Your task to perform on an android device: Open calendar and show me the first week of next month Image 0: 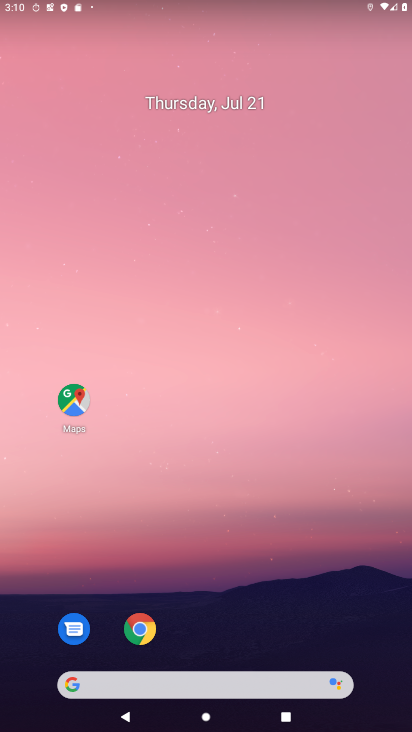
Step 0: drag from (240, 651) to (379, 432)
Your task to perform on an android device: Open calendar and show me the first week of next month Image 1: 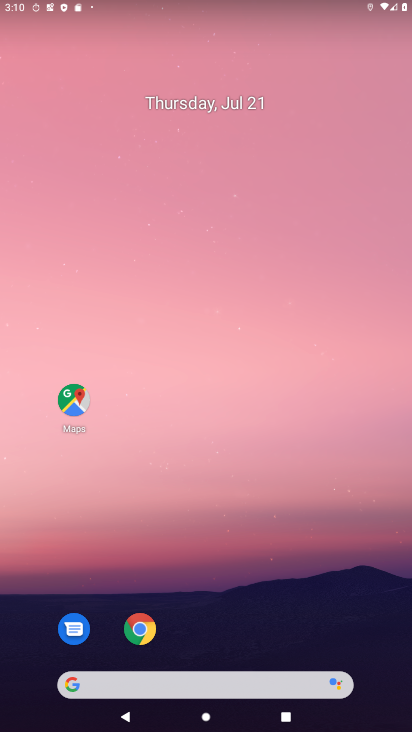
Step 1: drag from (214, 641) to (192, 12)
Your task to perform on an android device: Open calendar and show me the first week of next month Image 2: 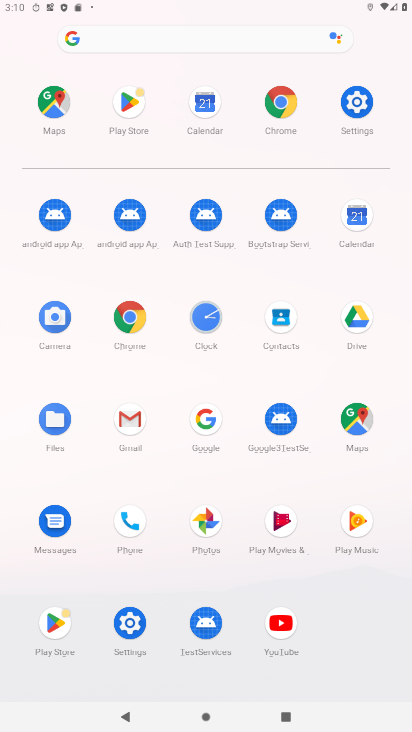
Step 2: click (364, 228)
Your task to perform on an android device: Open calendar and show me the first week of next month Image 3: 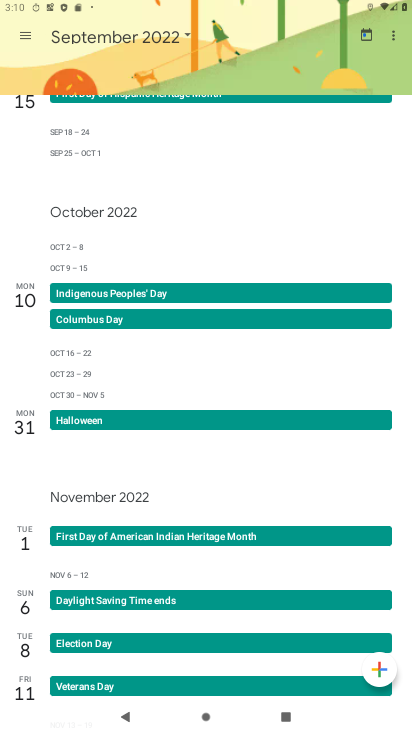
Step 3: drag from (185, 172) to (190, 725)
Your task to perform on an android device: Open calendar and show me the first week of next month Image 4: 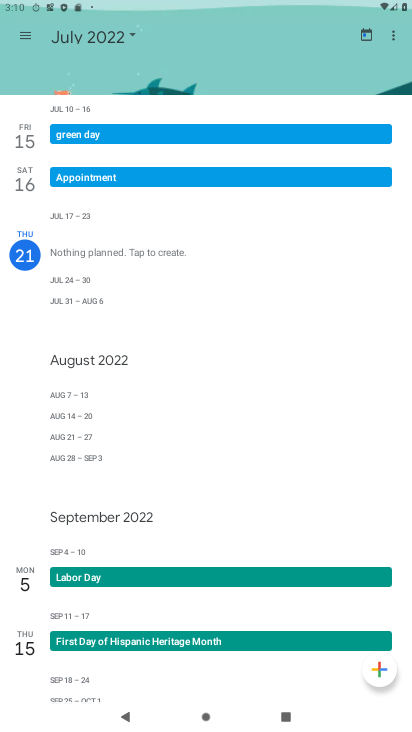
Step 4: drag from (139, 175) to (143, 561)
Your task to perform on an android device: Open calendar and show me the first week of next month Image 5: 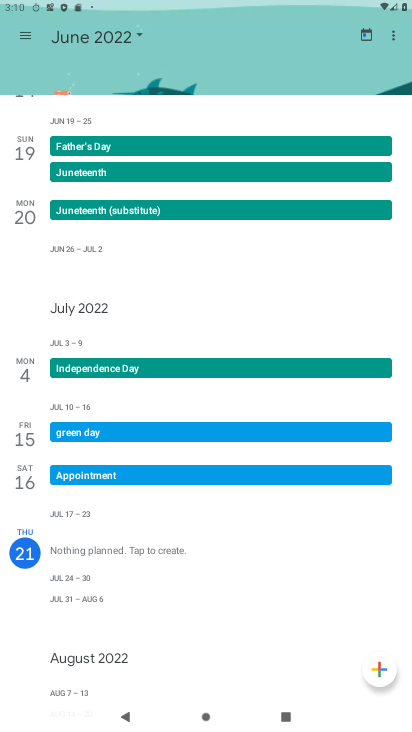
Step 5: drag from (132, 555) to (163, 198)
Your task to perform on an android device: Open calendar and show me the first week of next month Image 6: 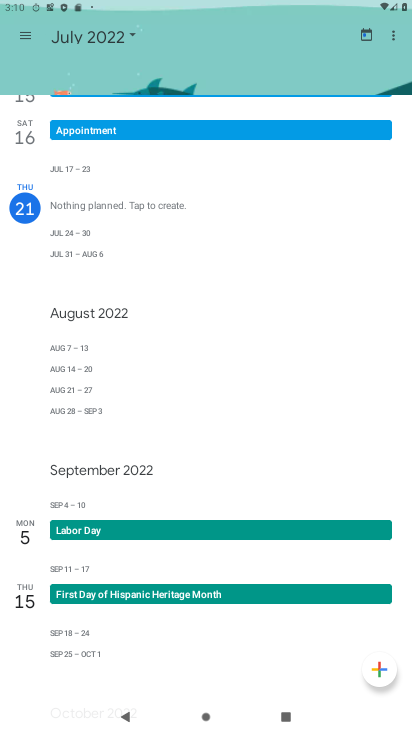
Step 6: drag from (146, 526) to (177, 353)
Your task to perform on an android device: Open calendar and show me the first week of next month Image 7: 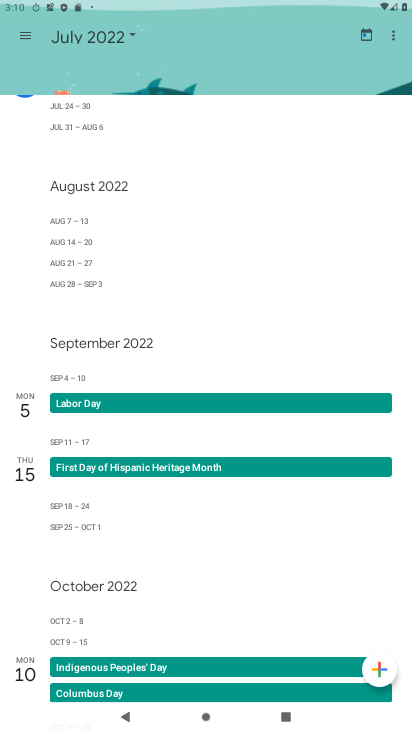
Step 7: click (18, 30)
Your task to perform on an android device: Open calendar and show me the first week of next month Image 8: 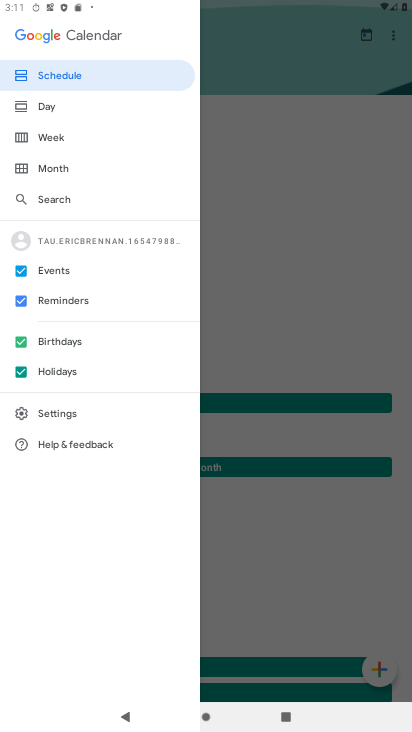
Step 8: click (58, 138)
Your task to perform on an android device: Open calendar and show me the first week of next month Image 9: 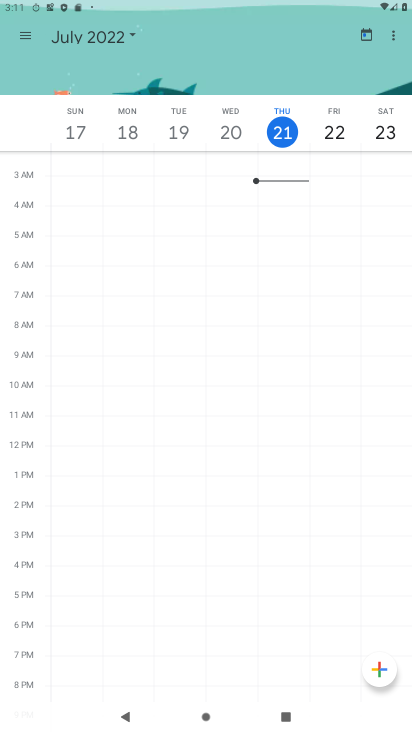
Step 9: task complete